Your task to perform on an android device: Do I have any events today? Image 0: 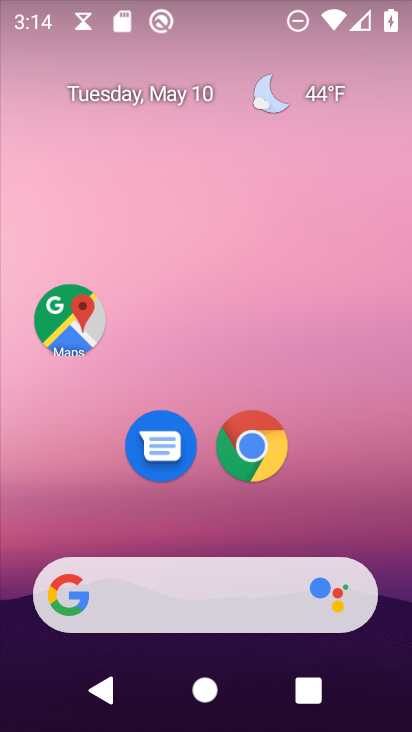
Step 0: click (345, 1)
Your task to perform on an android device: Do I have any events today? Image 1: 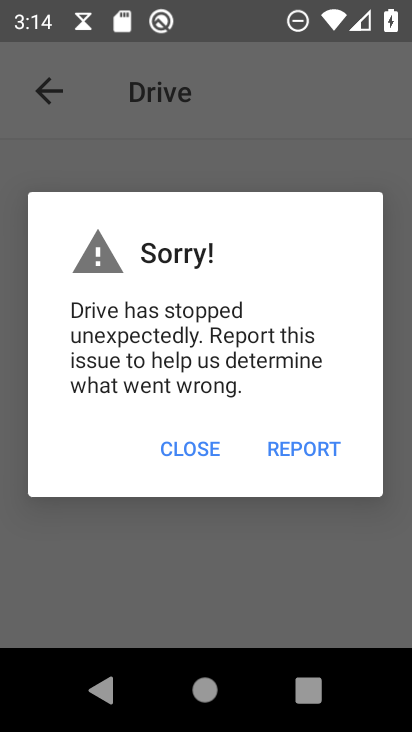
Step 1: press home button
Your task to perform on an android device: Do I have any events today? Image 2: 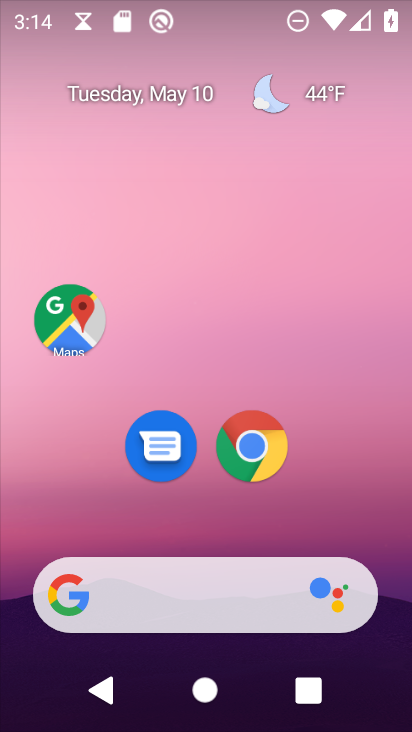
Step 2: drag from (340, 519) to (299, 120)
Your task to perform on an android device: Do I have any events today? Image 3: 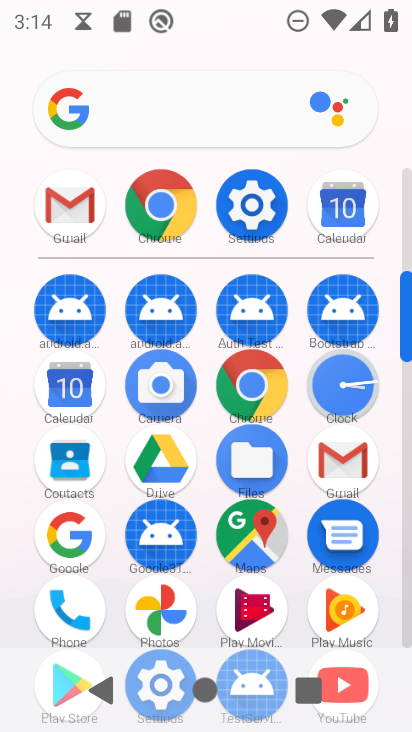
Step 3: click (64, 407)
Your task to perform on an android device: Do I have any events today? Image 4: 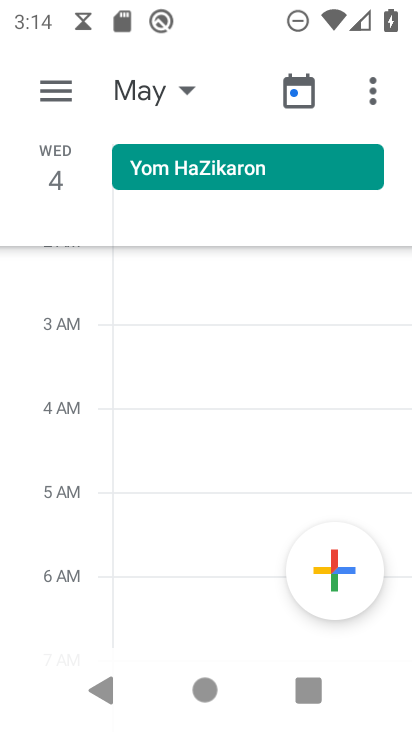
Step 4: click (159, 90)
Your task to perform on an android device: Do I have any events today? Image 5: 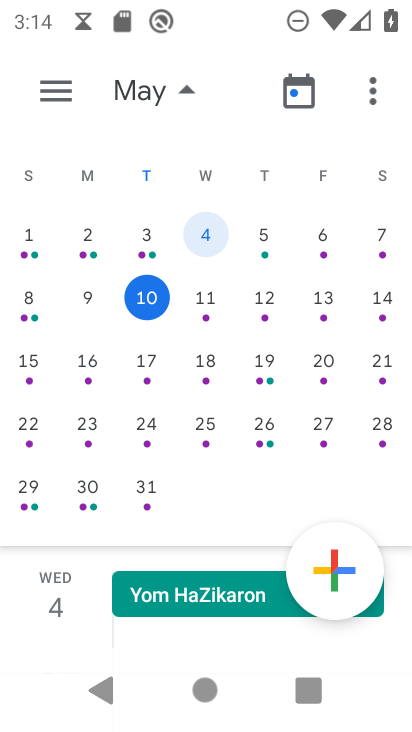
Step 5: task complete